Your task to perform on an android device: remove spam from my inbox in the gmail app Image 0: 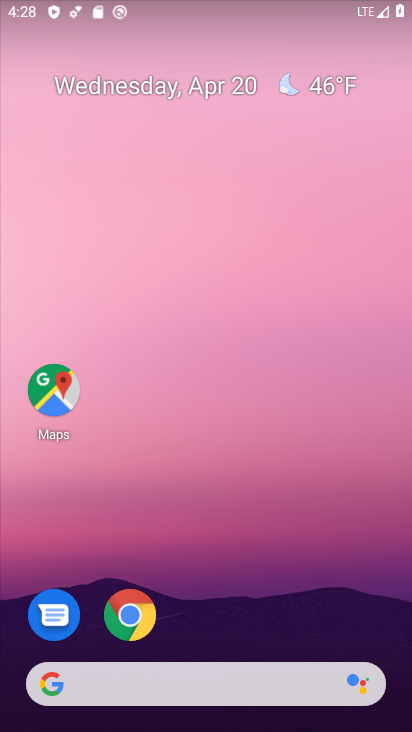
Step 0: drag from (240, 575) to (350, 41)
Your task to perform on an android device: remove spam from my inbox in the gmail app Image 1: 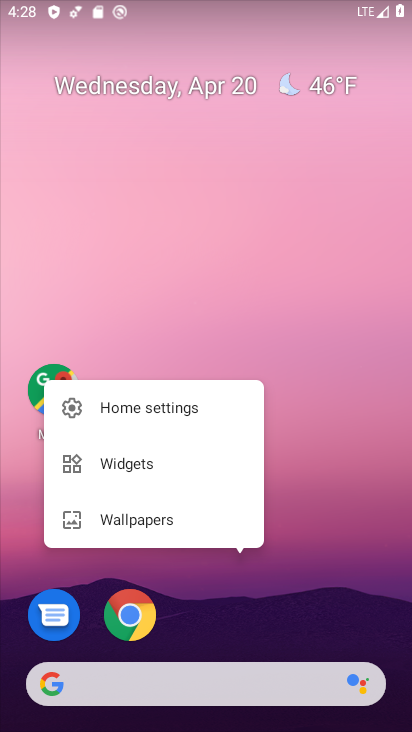
Step 1: click (332, 465)
Your task to perform on an android device: remove spam from my inbox in the gmail app Image 2: 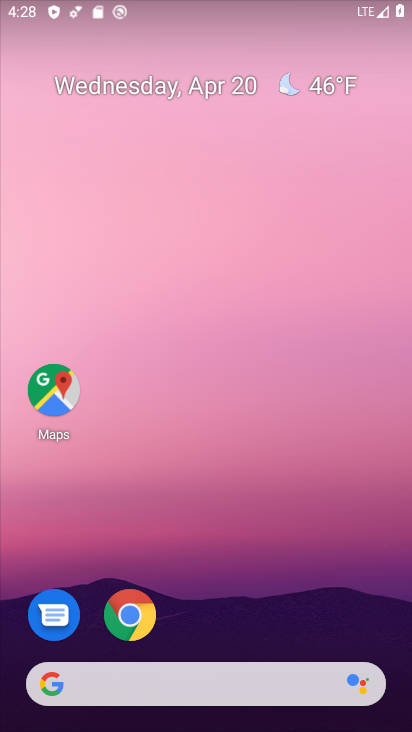
Step 2: drag from (244, 609) to (361, 36)
Your task to perform on an android device: remove spam from my inbox in the gmail app Image 3: 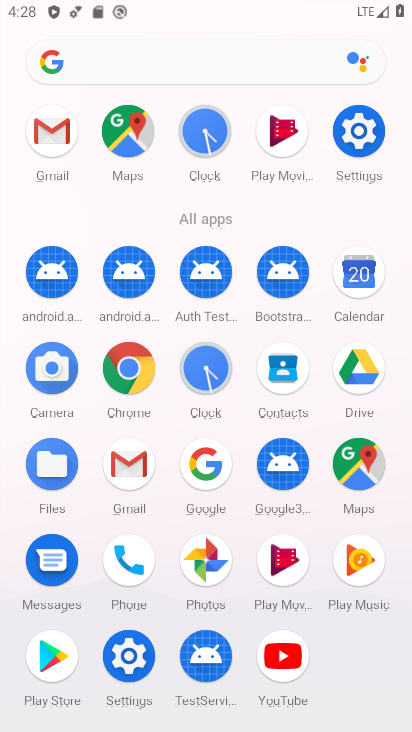
Step 3: click (56, 126)
Your task to perform on an android device: remove spam from my inbox in the gmail app Image 4: 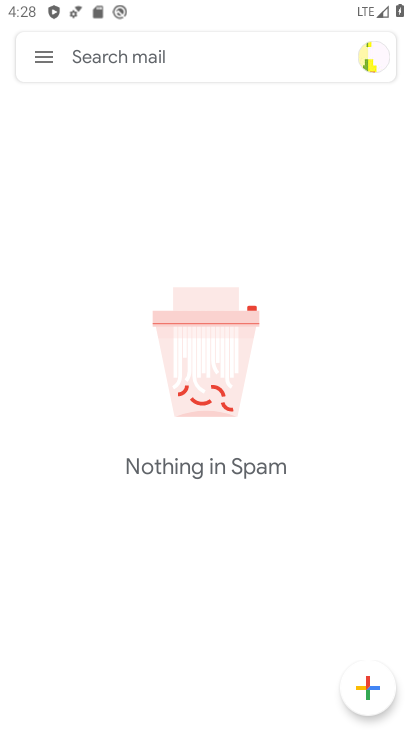
Step 4: click (43, 49)
Your task to perform on an android device: remove spam from my inbox in the gmail app Image 5: 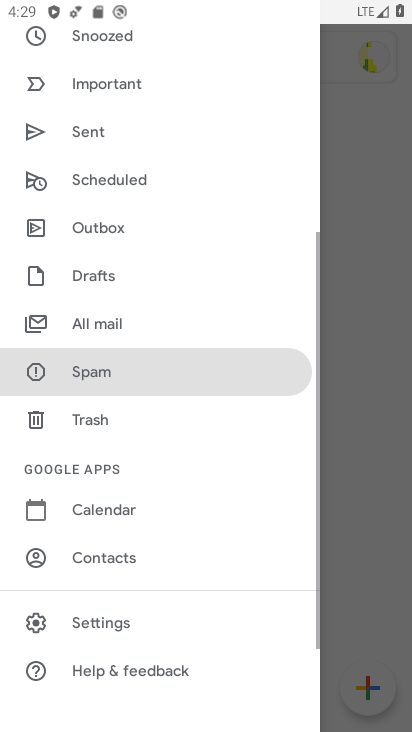
Step 5: task complete